Your task to perform on an android device: Open the map Image 0: 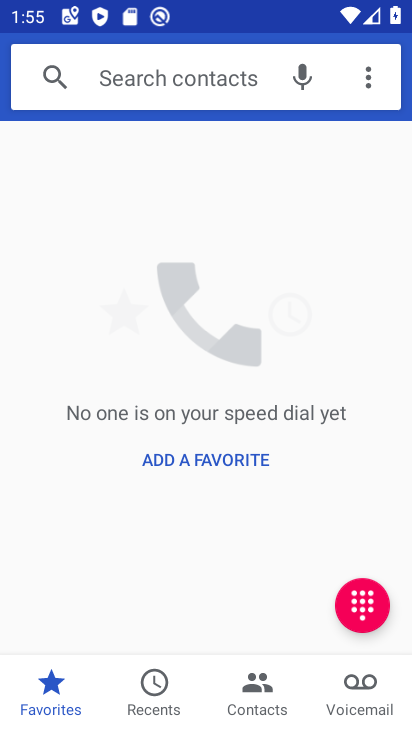
Step 0: press home button
Your task to perform on an android device: Open the map Image 1: 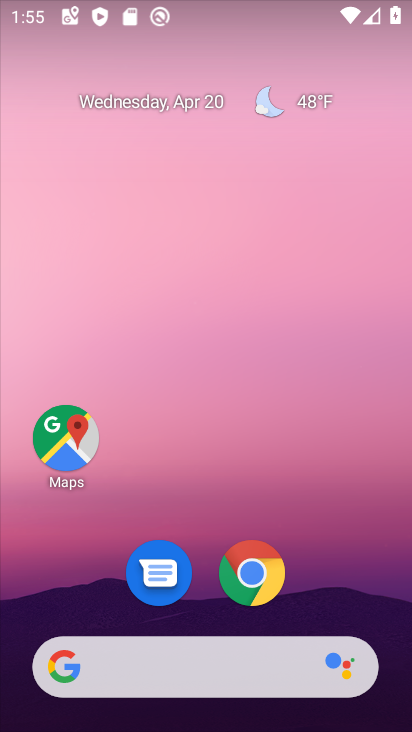
Step 1: drag from (170, 667) to (300, 38)
Your task to perform on an android device: Open the map Image 2: 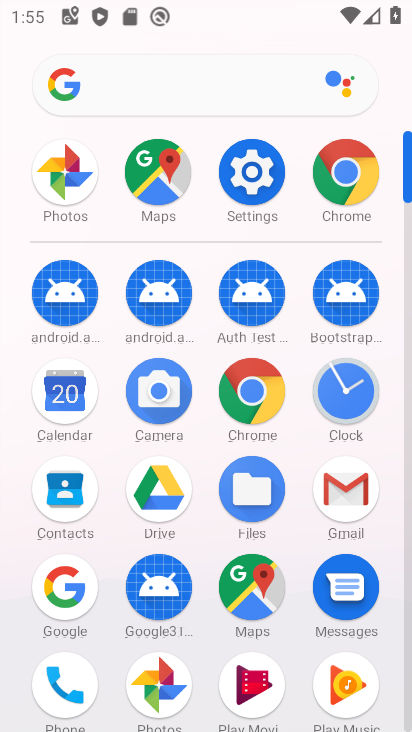
Step 2: click (142, 195)
Your task to perform on an android device: Open the map Image 3: 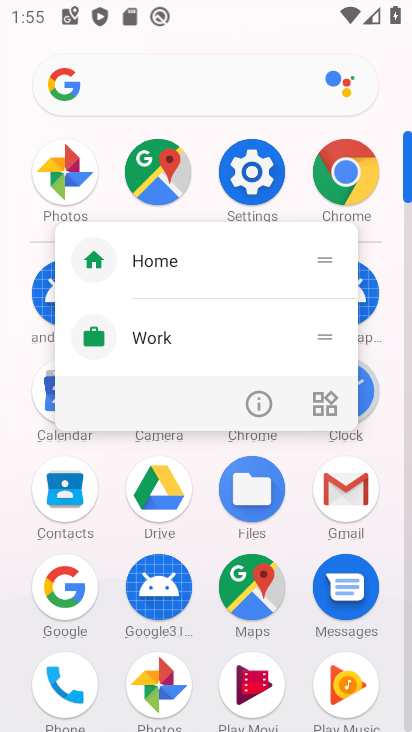
Step 3: click (165, 168)
Your task to perform on an android device: Open the map Image 4: 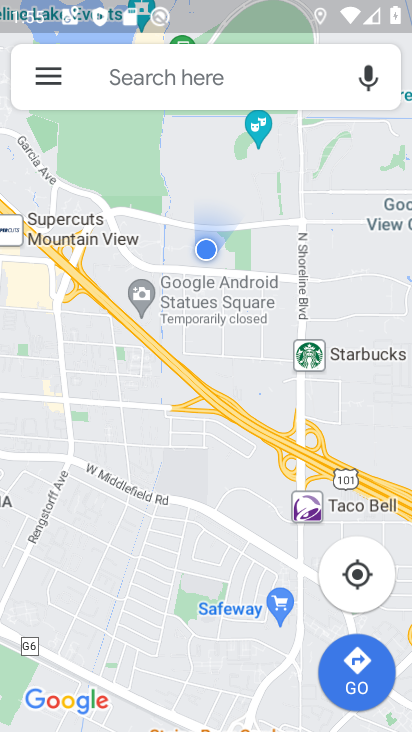
Step 4: task complete